Your task to perform on an android device: turn off smart reply in the gmail app Image 0: 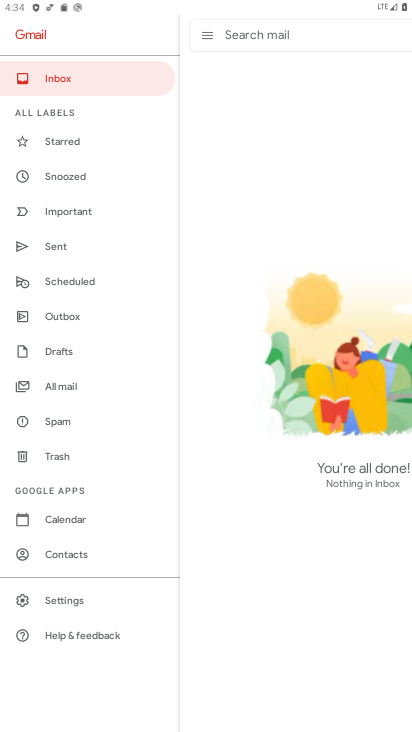
Step 0: press home button
Your task to perform on an android device: turn off smart reply in the gmail app Image 1: 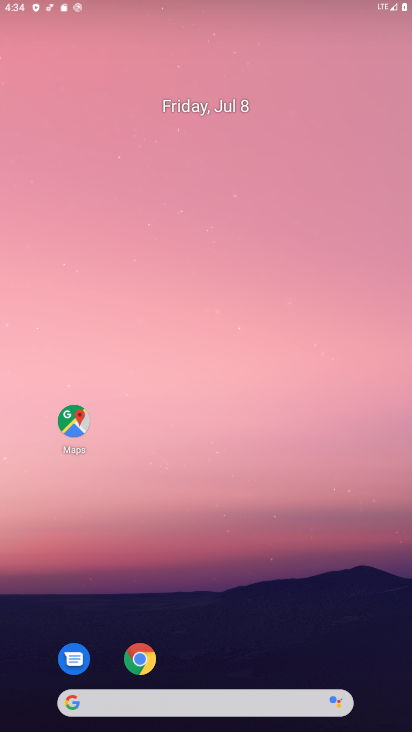
Step 1: drag from (368, 598) to (368, 0)
Your task to perform on an android device: turn off smart reply in the gmail app Image 2: 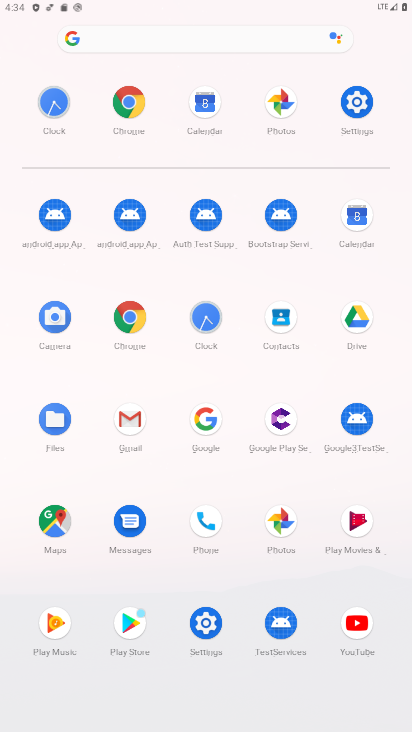
Step 2: click (143, 416)
Your task to perform on an android device: turn off smart reply in the gmail app Image 3: 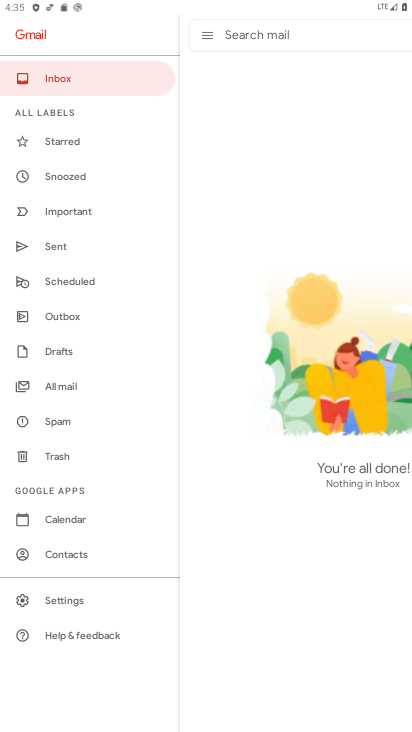
Step 3: click (88, 598)
Your task to perform on an android device: turn off smart reply in the gmail app Image 4: 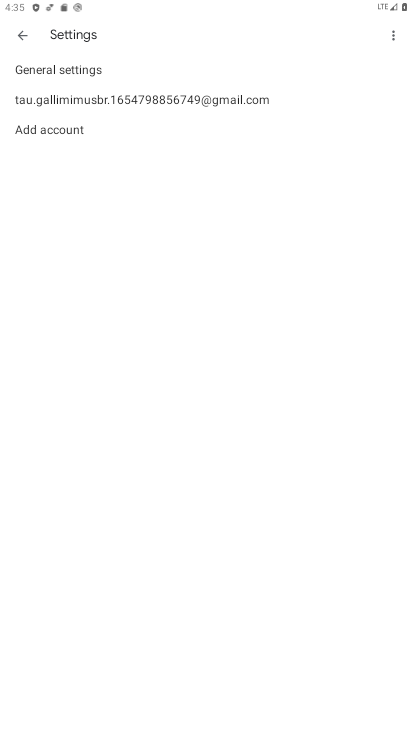
Step 4: click (131, 112)
Your task to perform on an android device: turn off smart reply in the gmail app Image 5: 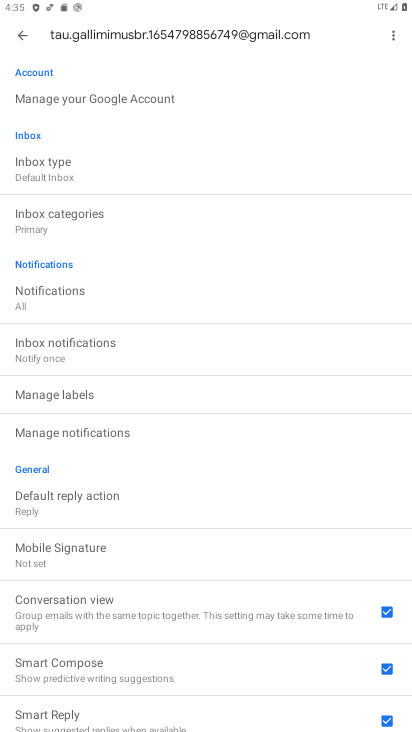
Step 5: click (77, 714)
Your task to perform on an android device: turn off smart reply in the gmail app Image 6: 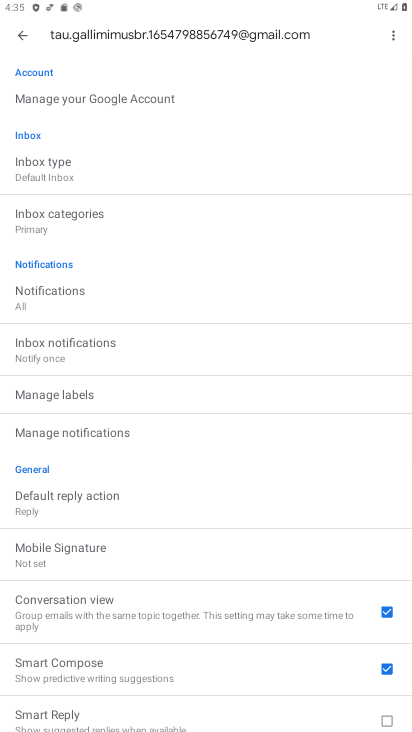
Step 6: task complete